Your task to perform on an android device: search for starred emails in the gmail app Image 0: 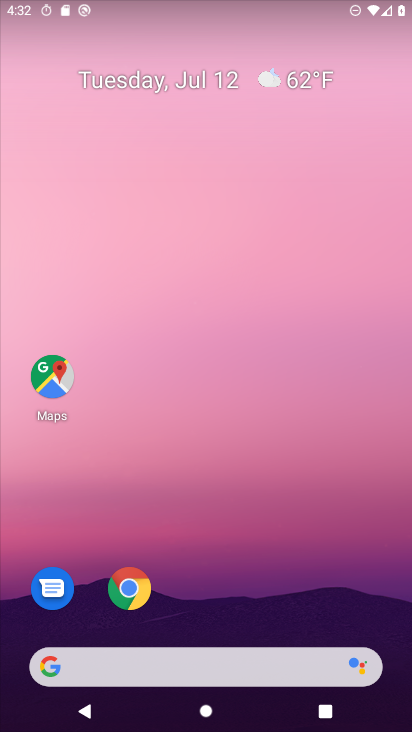
Step 0: drag from (223, 622) to (216, 122)
Your task to perform on an android device: search for starred emails in the gmail app Image 1: 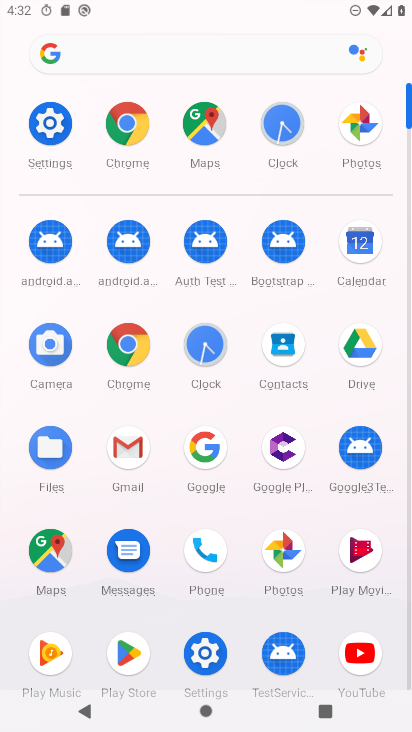
Step 1: click (139, 471)
Your task to perform on an android device: search for starred emails in the gmail app Image 2: 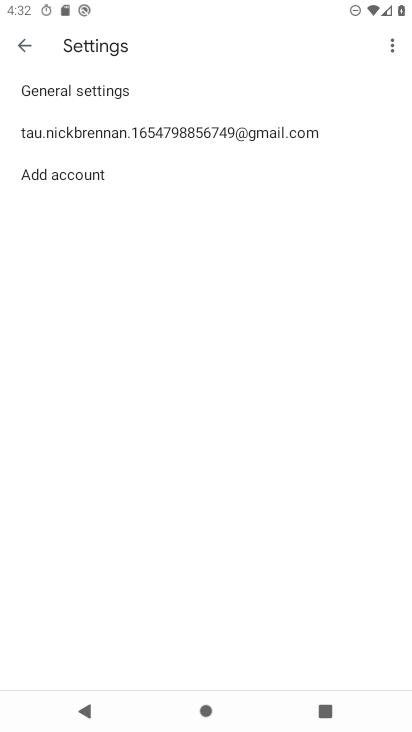
Step 2: click (16, 38)
Your task to perform on an android device: search for starred emails in the gmail app Image 3: 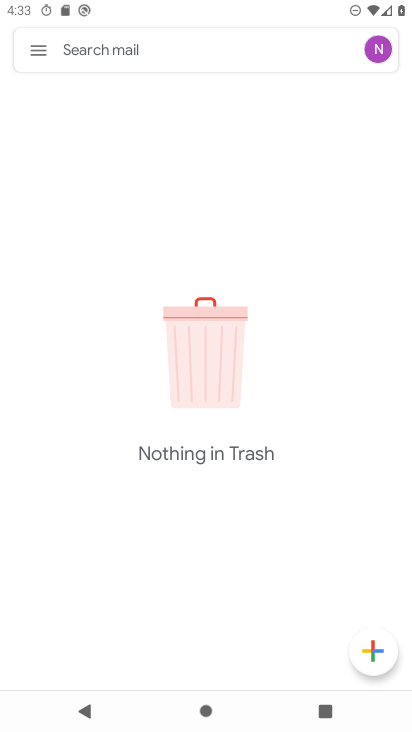
Step 3: click (40, 49)
Your task to perform on an android device: search for starred emails in the gmail app Image 4: 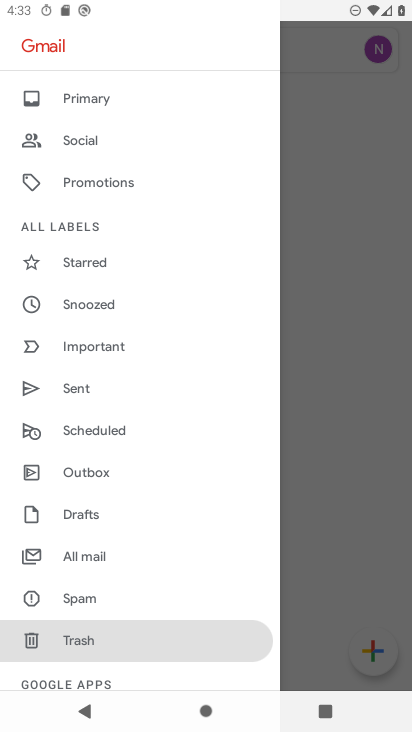
Step 4: click (106, 264)
Your task to perform on an android device: search for starred emails in the gmail app Image 5: 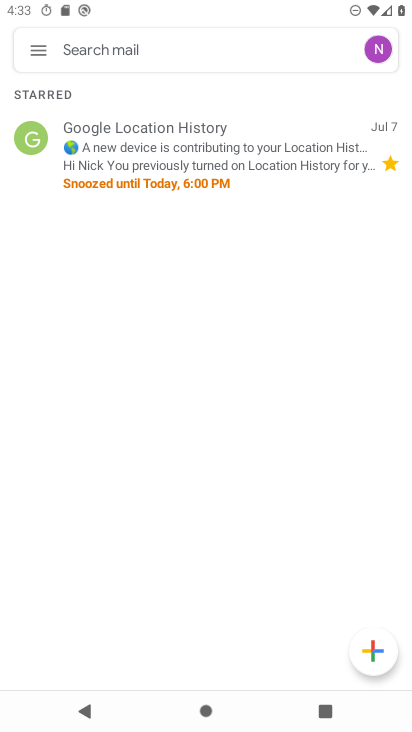
Step 5: task complete